Your task to perform on an android device: turn off sleep mode Image 0: 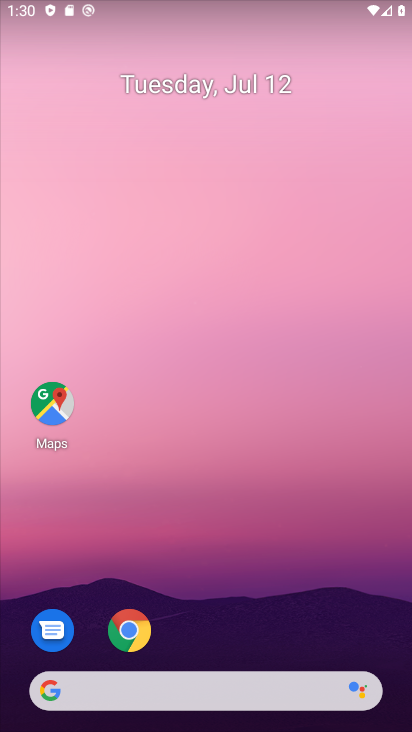
Step 0: drag from (389, 667) to (279, 25)
Your task to perform on an android device: turn off sleep mode Image 1: 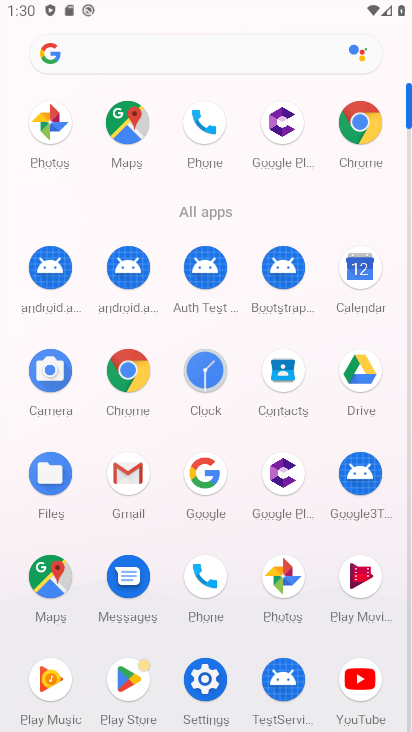
Step 1: click (198, 672)
Your task to perform on an android device: turn off sleep mode Image 2: 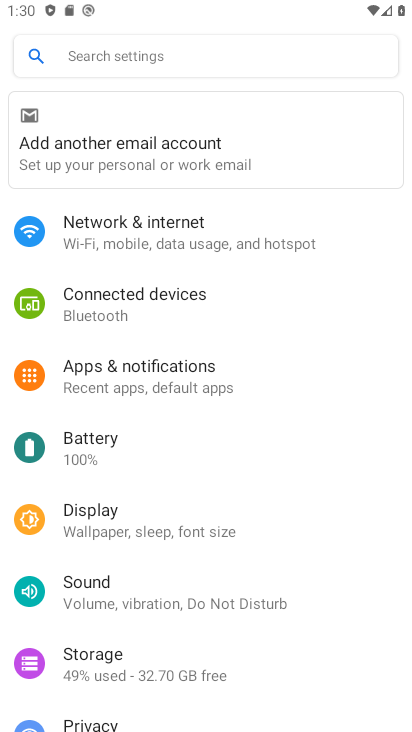
Step 2: click (73, 515)
Your task to perform on an android device: turn off sleep mode Image 3: 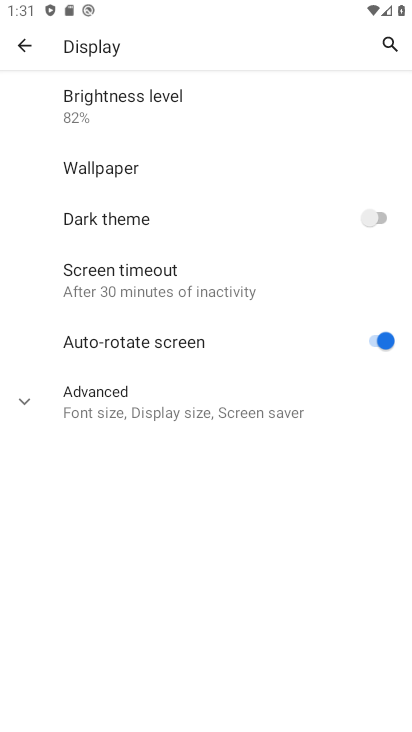
Step 3: click (112, 275)
Your task to perform on an android device: turn off sleep mode Image 4: 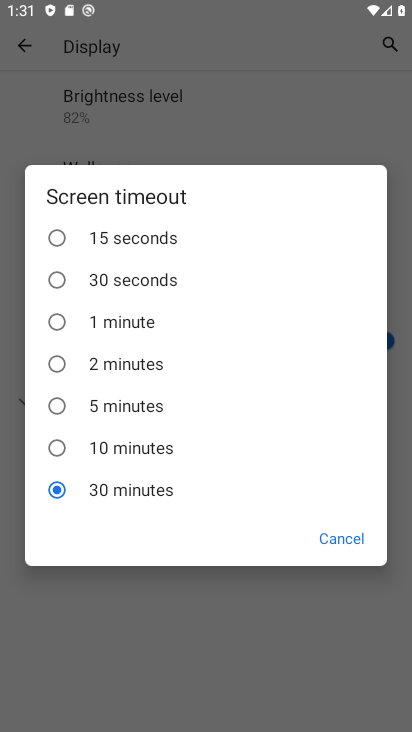
Step 4: click (58, 401)
Your task to perform on an android device: turn off sleep mode Image 5: 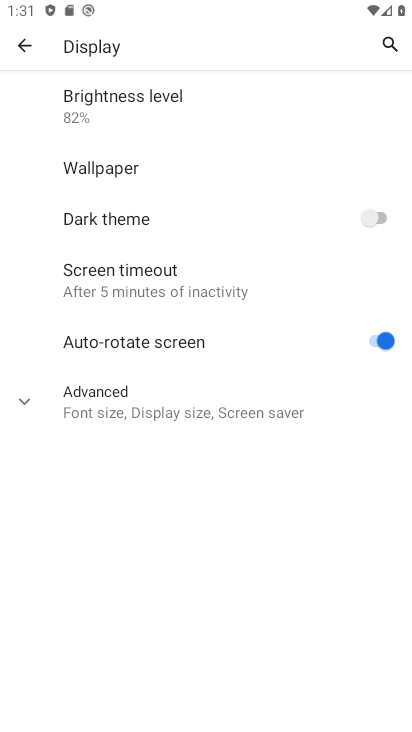
Step 5: task complete